Your task to perform on an android device: Open Yahoo.com Image 0: 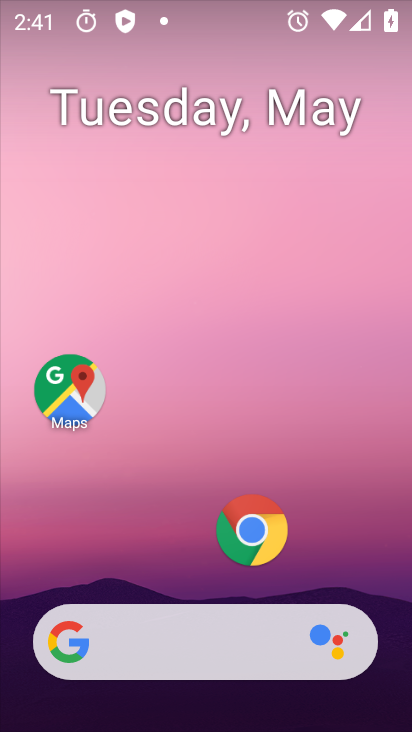
Step 0: click (249, 525)
Your task to perform on an android device: Open Yahoo.com Image 1: 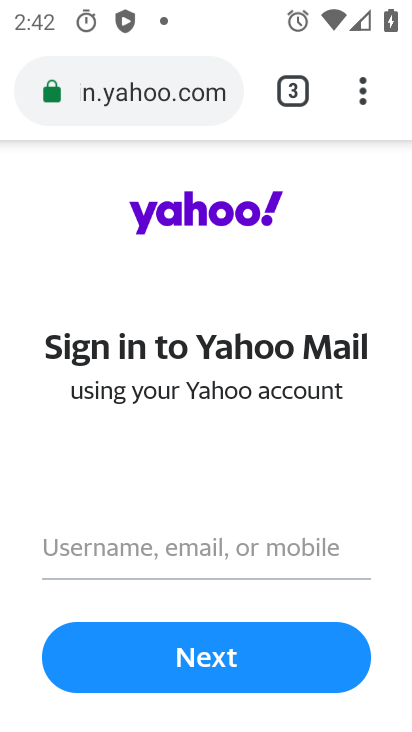
Step 1: task complete